Your task to perform on an android device: set default search engine in the chrome app Image 0: 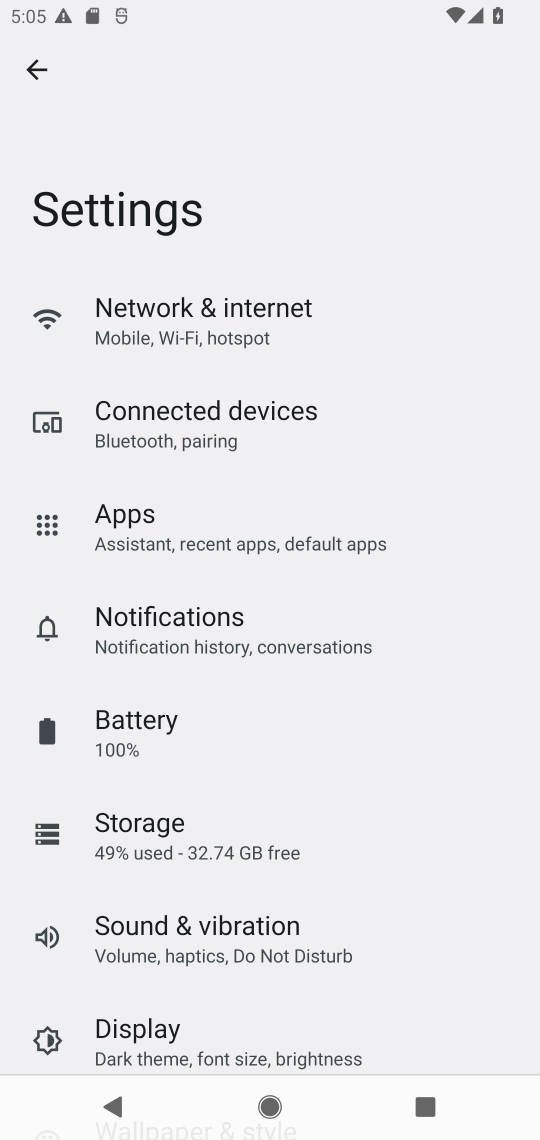
Step 0: press home button
Your task to perform on an android device: set default search engine in the chrome app Image 1: 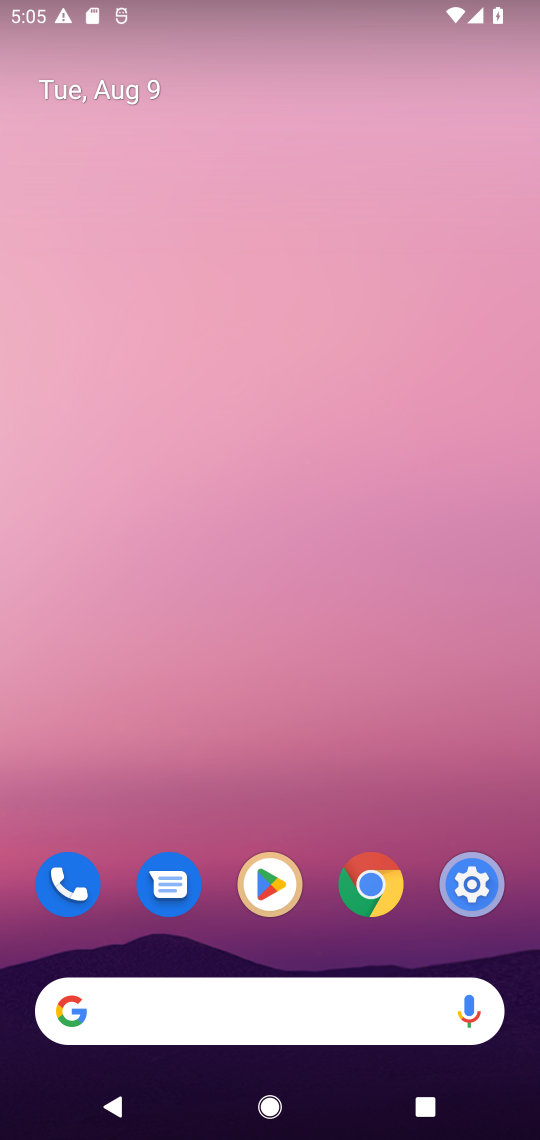
Step 1: click (372, 887)
Your task to perform on an android device: set default search engine in the chrome app Image 2: 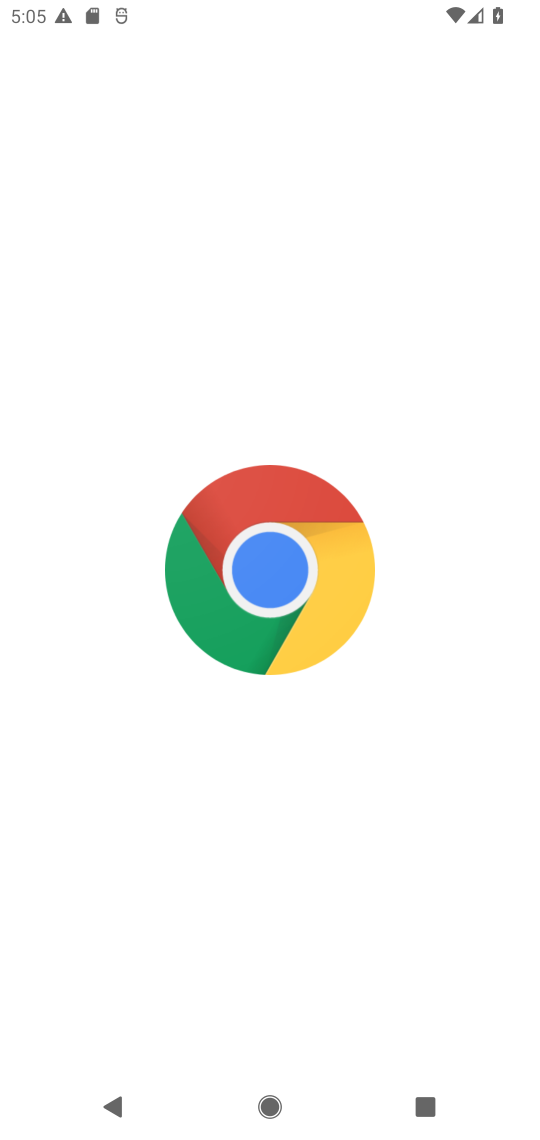
Step 2: press back button
Your task to perform on an android device: set default search engine in the chrome app Image 3: 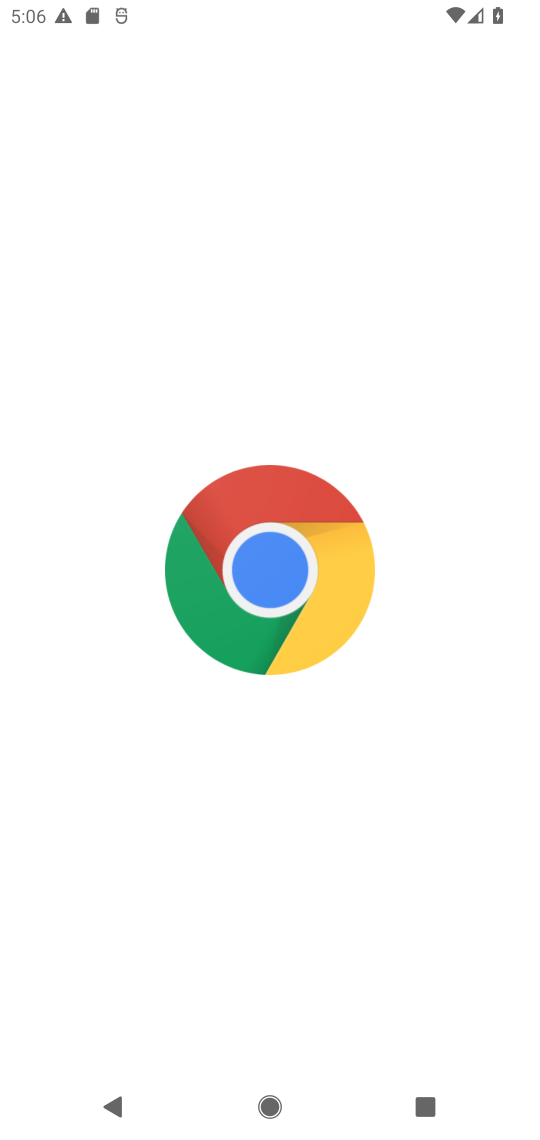
Step 3: press home button
Your task to perform on an android device: set default search engine in the chrome app Image 4: 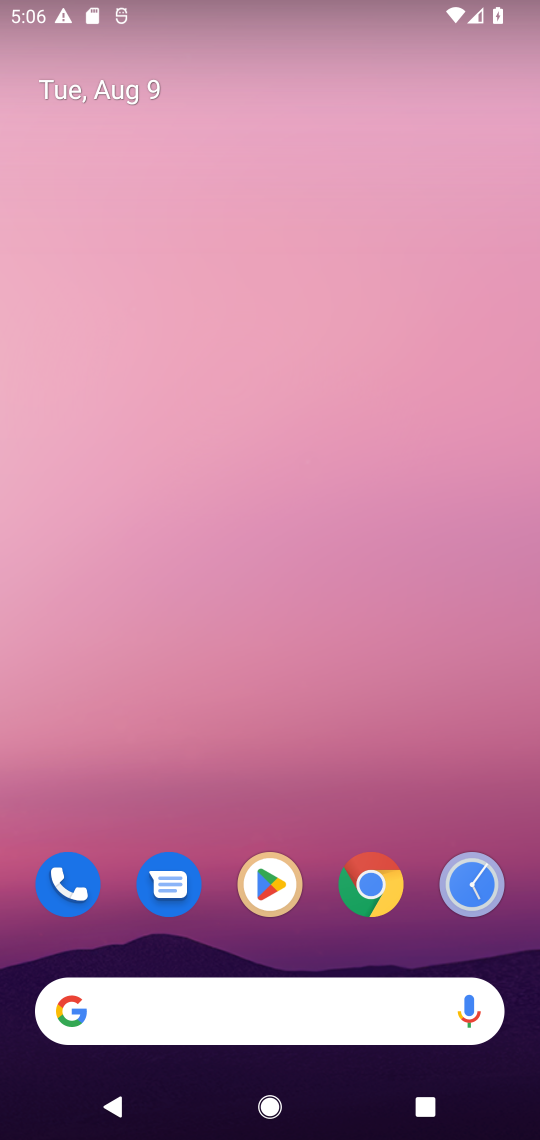
Step 4: click (368, 877)
Your task to perform on an android device: set default search engine in the chrome app Image 5: 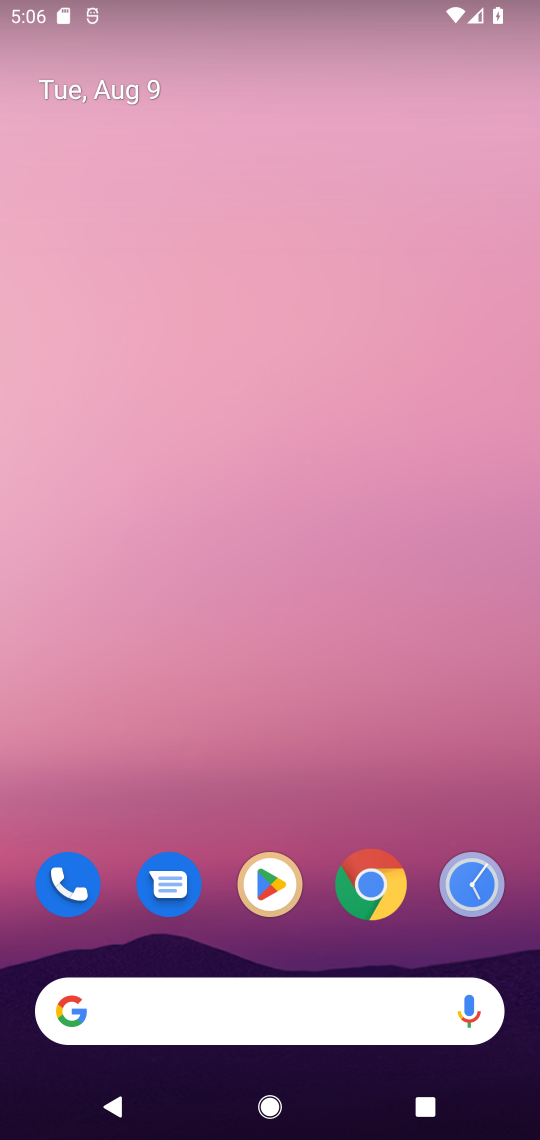
Step 5: click (367, 889)
Your task to perform on an android device: set default search engine in the chrome app Image 6: 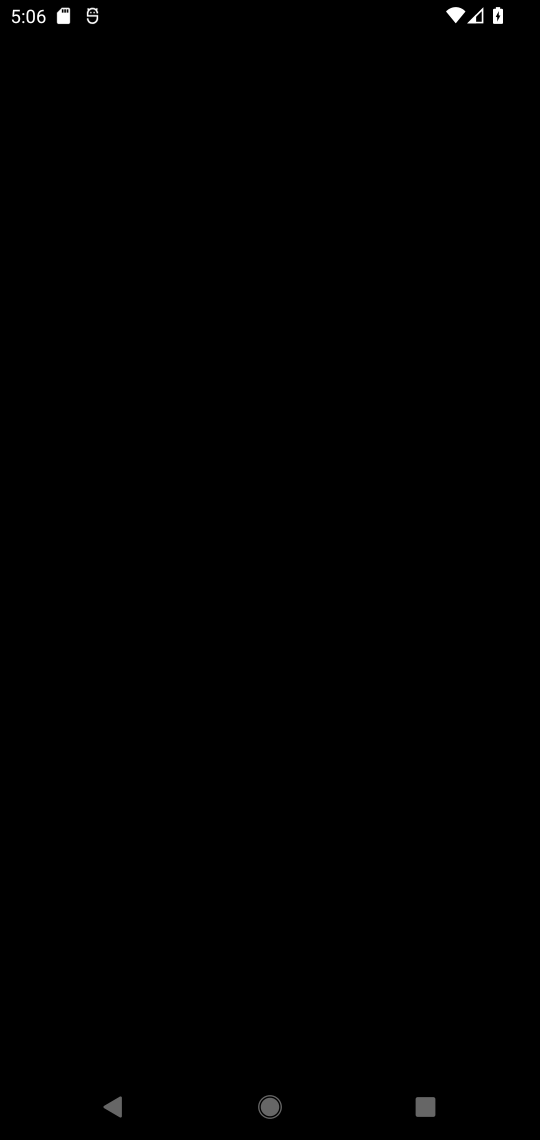
Step 6: task complete